Your task to perform on an android device: Open Google Chrome Image 0: 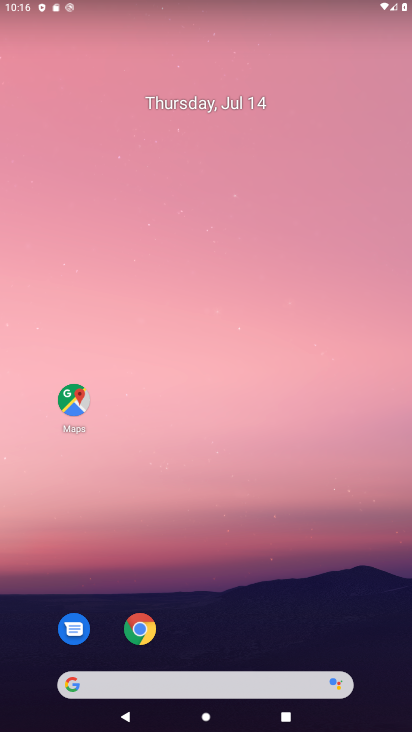
Step 0: click (131, 630)
Your task to perform on an android device: Open Google Chrome Image 1: 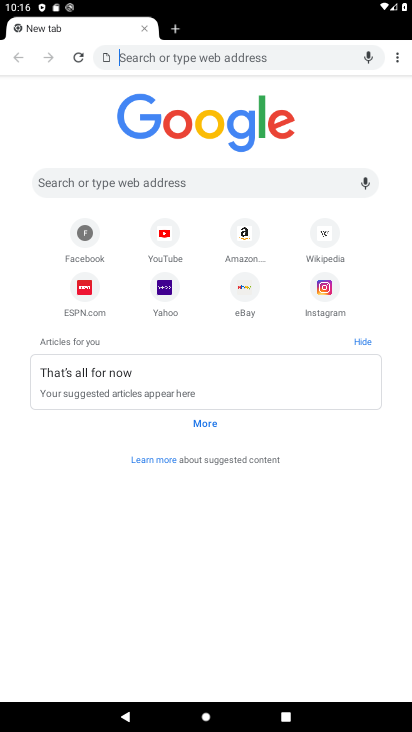
Step 1: task complete